Your task to perform on an android device: open chrome privacy settings Image 0: 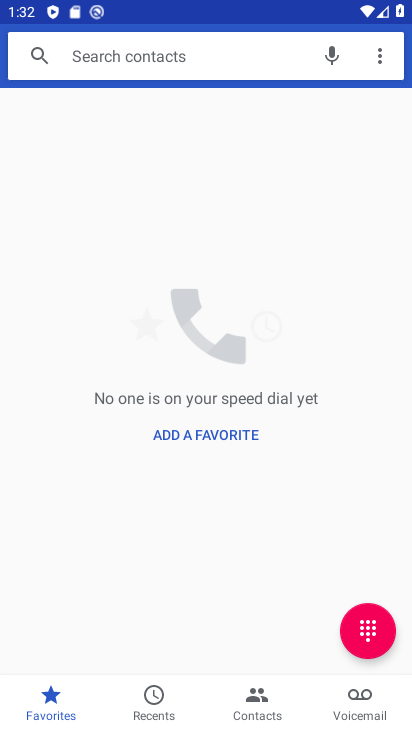
Step 0: press back button
Your task to perform on an android device: open chrome privacy settings Image 1: 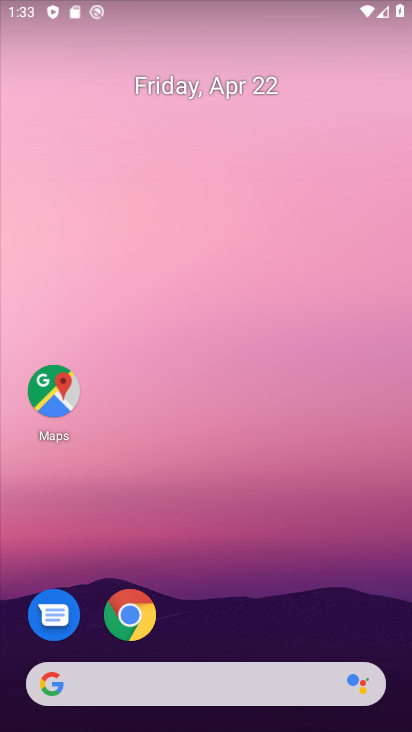
Step 1: drag from (211, 522) to (334, 106)
Your task to perform on an android device: open chrome privacy settings Image 2: 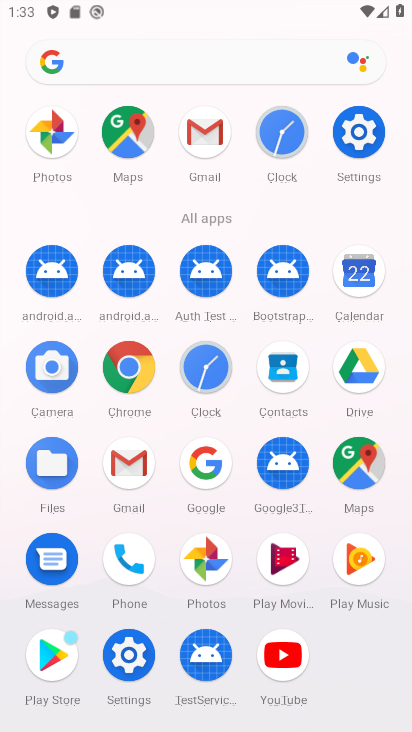
Step 2: click (123, 370)
Your task to perform on an android device: open chrome privacy settings Image 3: 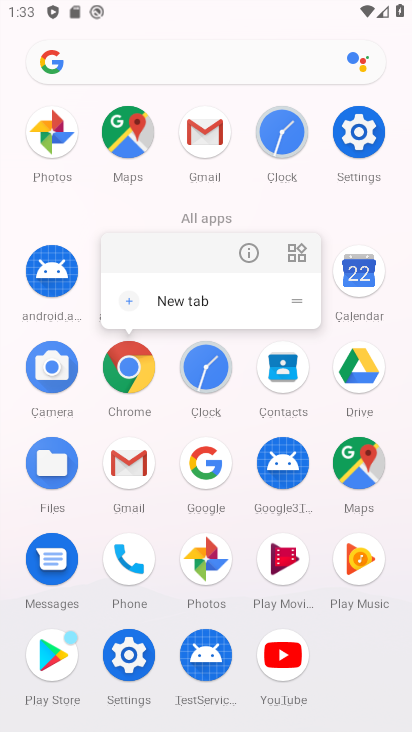
Step 3: click (119, 370)
Your task to perform on an android device: open chrome privacy settings Image 4: 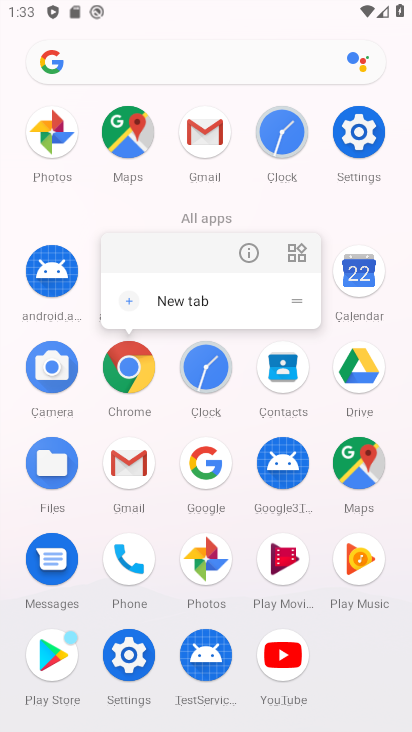
Step 4: click (121, 369)
Your task to perform on an android device: open chrome privacy settings Image 5: 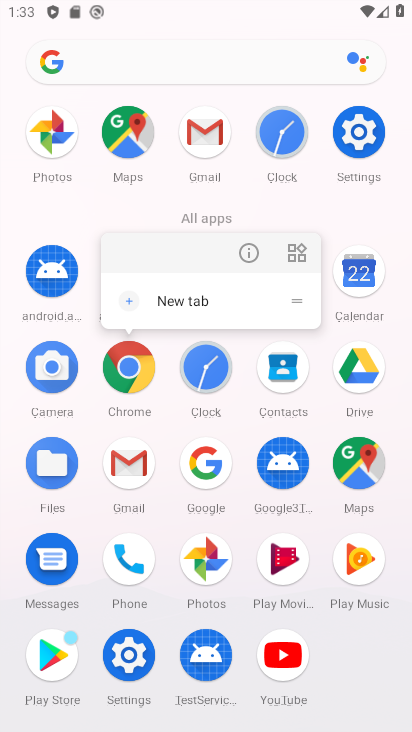
Step 5: click (131, 373)
Your task to perform on an android device: open chrome privacy settings Image 6: 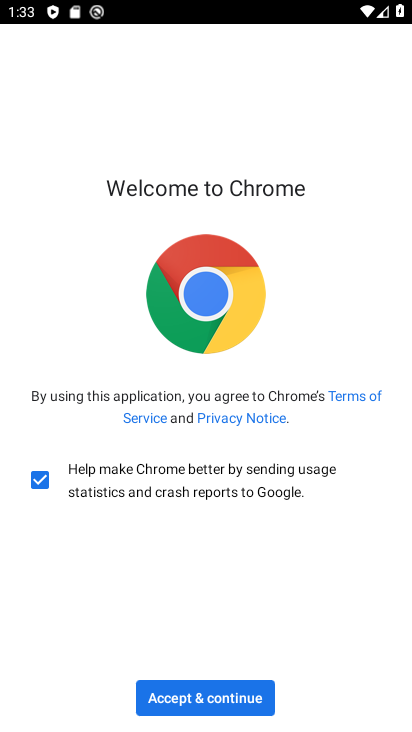
Step 6: click (212, 683)
Your task to perform on an android device: open chrome privacy settings Image 7: 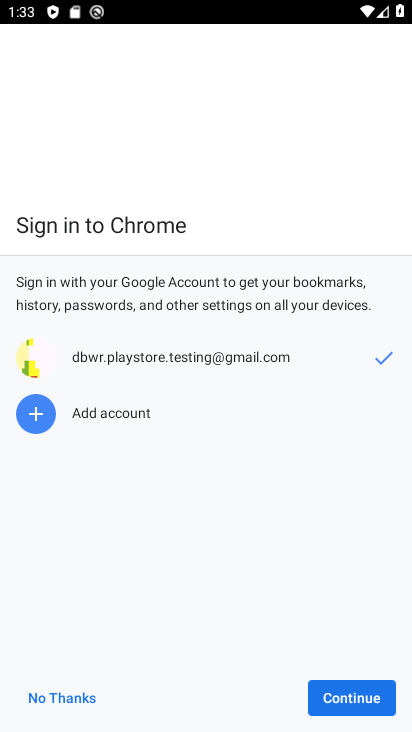
Step 7: click (342, 703)
Your task to perform on an android device: open chrome privacy settings Image 8: 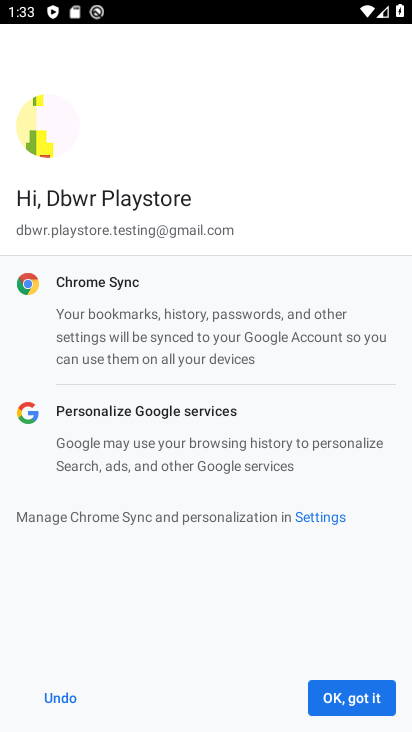
Step 8: click (360, 708)
Your task to perform on an android device: open chrome privacy settings Image 9: 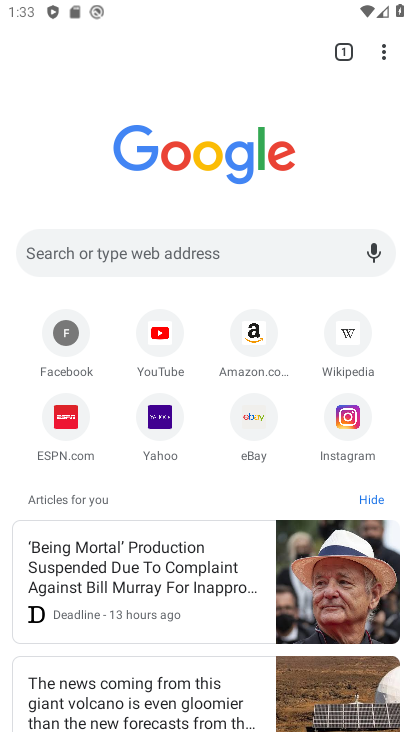
Step 9: click (384, 58)
Your task to perform on an android device: open chrome privacy settings Image 10: 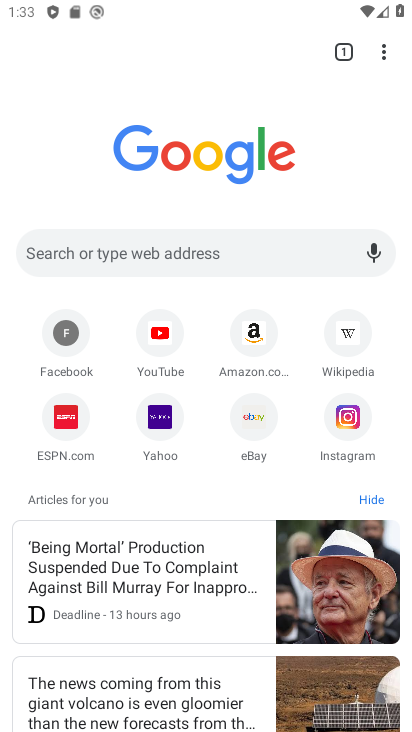
Step 10: click (385, 53)
Your task to perform on an android device: open chrome privacy settings Image 11: 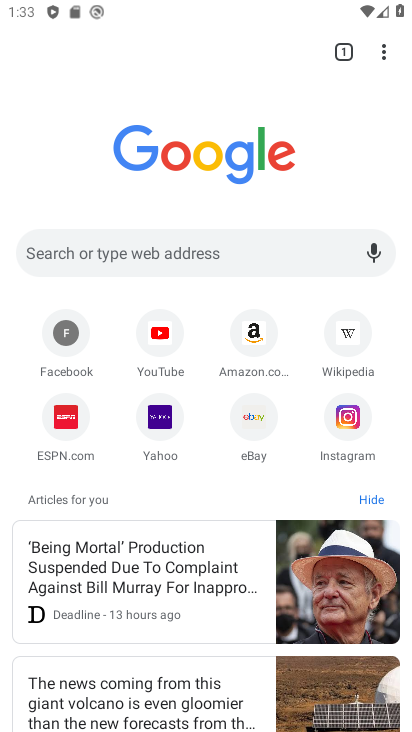
Step 11: click (400, 42)
Your task to perform on an android device: open chrome privacy settings Image 12: 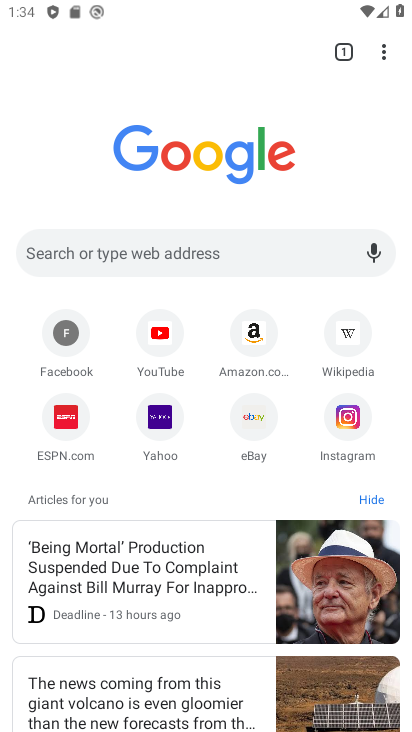
Step 12: drag from (395, 52) to (297, 440)
Your task to perform on an android device: open chrome privacy settings Image 13: 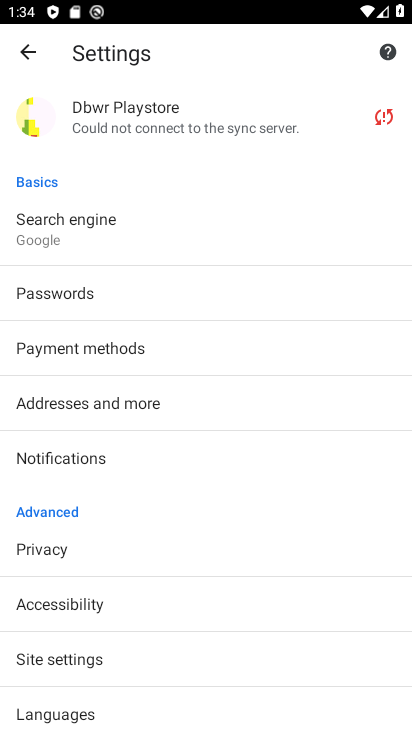
Step 13: click (82, 551)
Your task to perform on an android device: open chrome privacy settings Image 14: 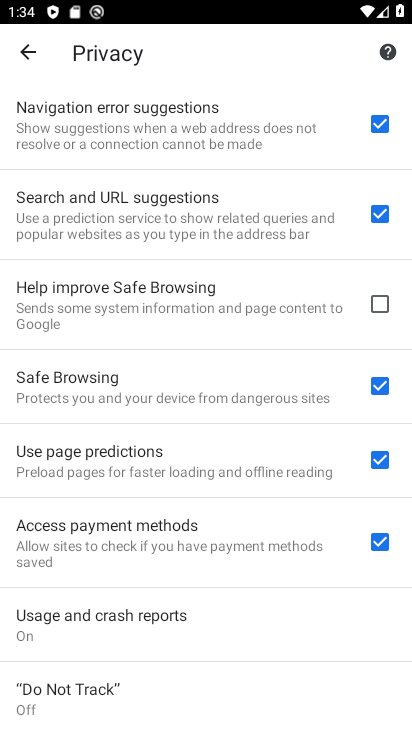
Step 14: task complete